Your task to perform on an android device: change alarm snooze length Image 0: 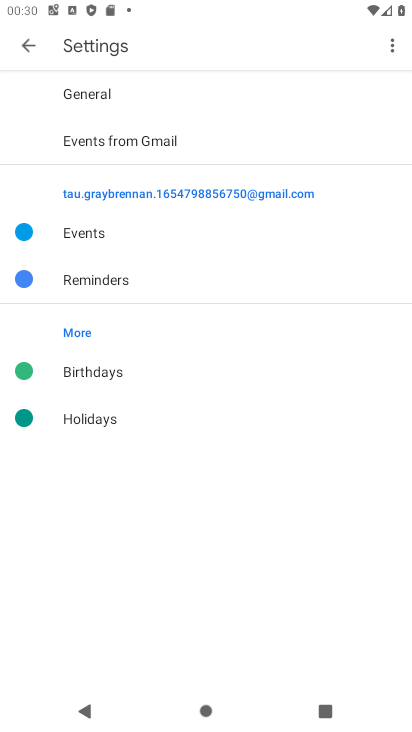
Step 0: press home button
Your task to perform on an android device: change alarm snooze length Image 1: 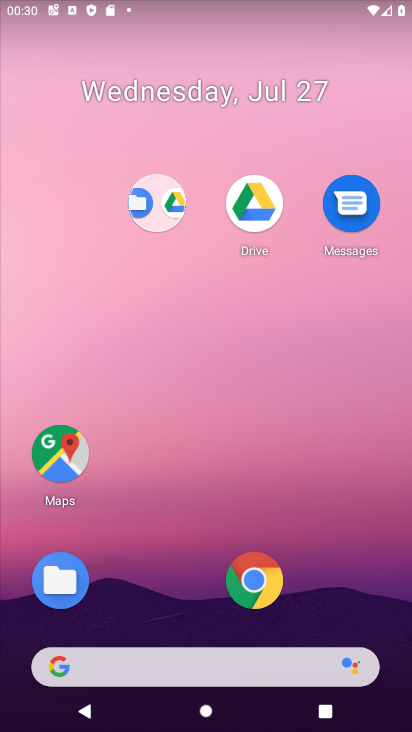
Step 1: drag from (201, 596) to (247, 126)
Your task to perform on an android device: change alarm snooze length Image 2: 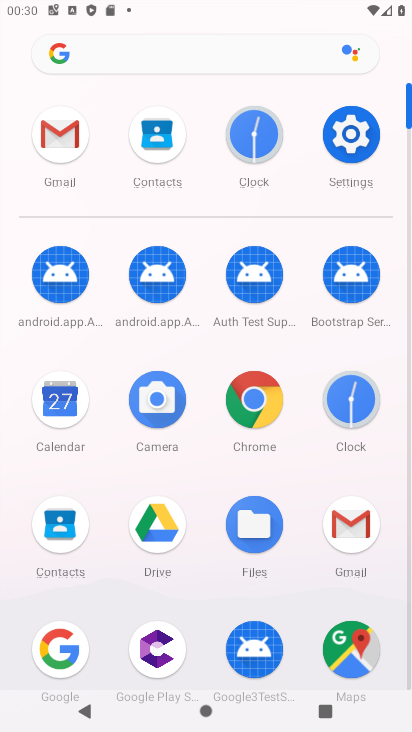
Step 2: click (342, 402)
Your task to perform on an android device: change alarm snooze length Image 3: 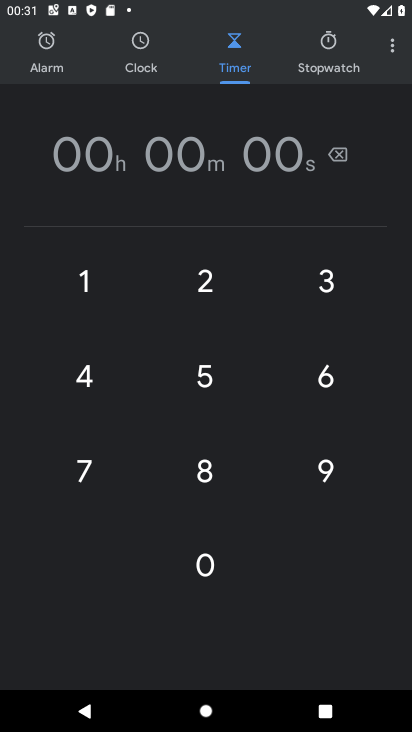
Step 3: click (399, 45)
Your task to perform on an android device: change alarm snooze length Image 4: 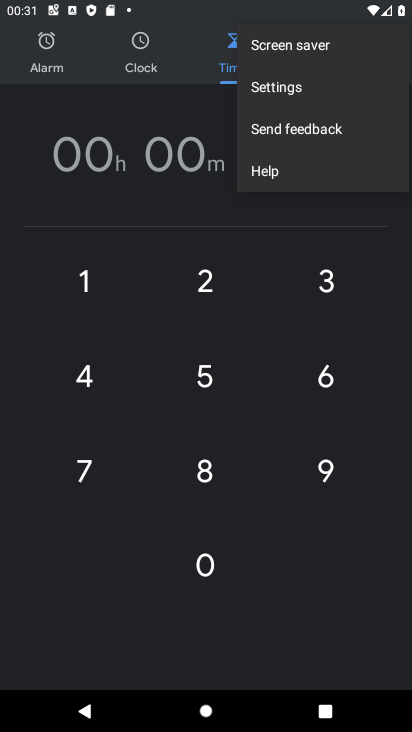
Step 4: click (331, 87)
Your task to perform on an android device: change alarm snooze length Image 5: 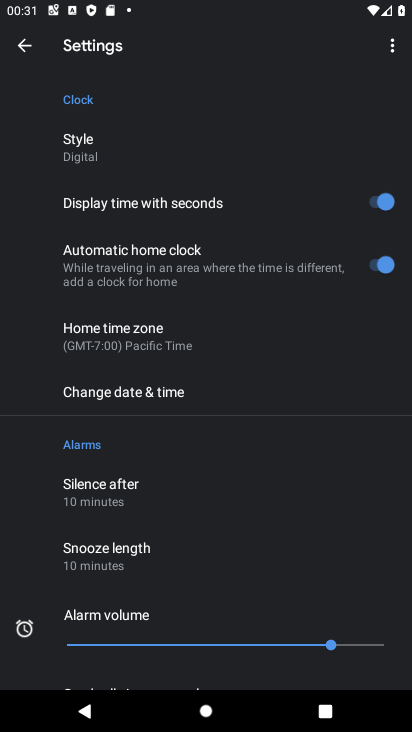
Step 5: click (142, 575)
Your task to perform on an android device: change alarm snooze length Image 6: 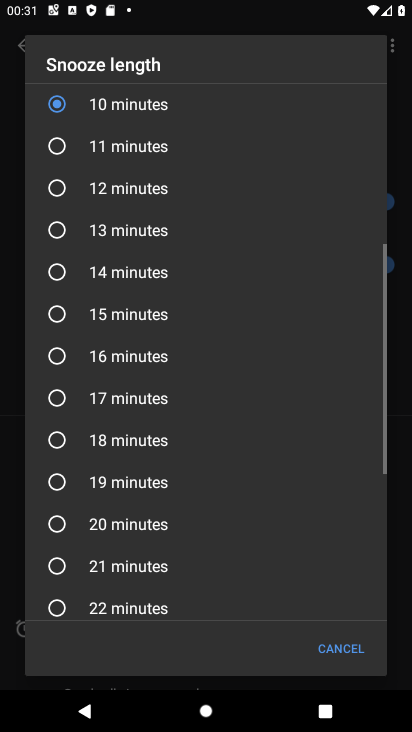
Step 6: click (142, 575)
Your task to perform on an android device: change alarm snooze length Image 7: 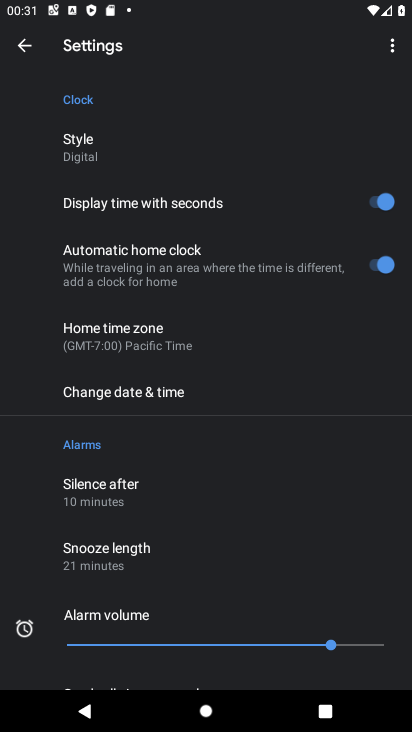
Step 7: task complete